Your task to perform on an android device: Open location settings Image 0: 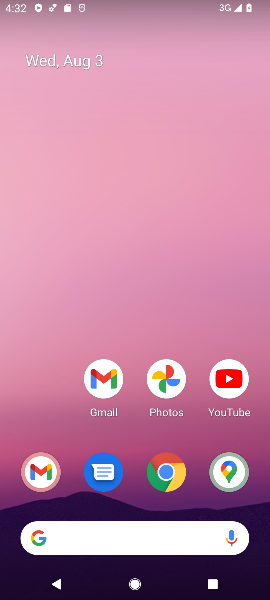
Step 0: drag from (63, 386) to (83, 250)
Your task to perform on an android device: Open location settings Image 1: 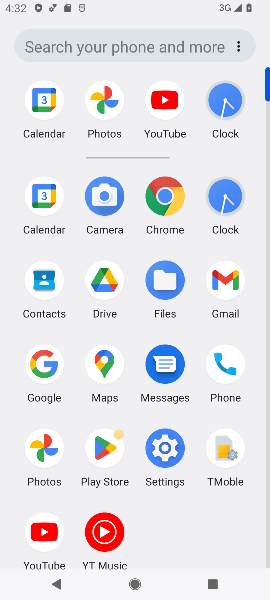
Step 1: click (172, 444)
Your task to perform on an android device: Open location settings Image 2: 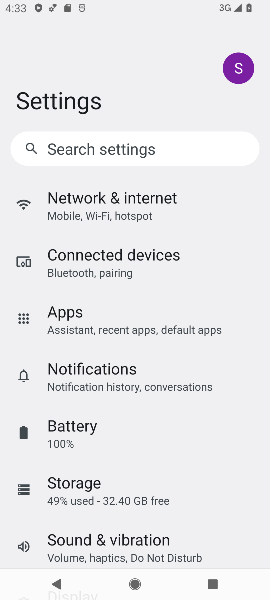
Step 2: drag from (163, 422) to (217, 150)
Your task to perform on an android device: Open location settings Image 3: 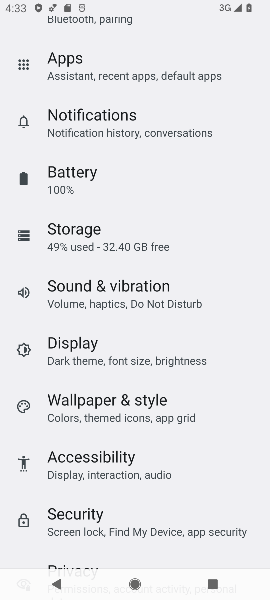
Step 3: drag from (111, 399) to (159, 152)
Your task to perform on an android device: Open location settings Image 4: 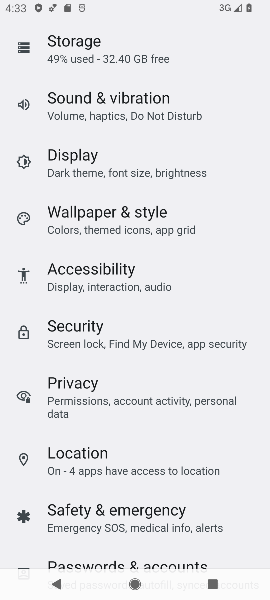
Step 4: click (86, 450)
Your task to perform on an android device: Open location settings Image 5: 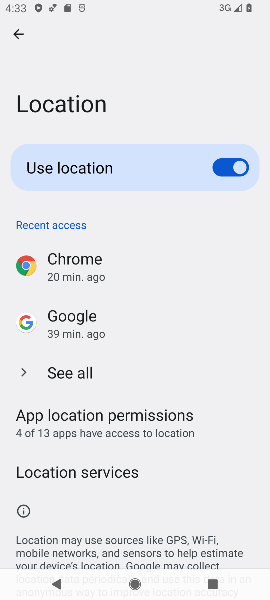
Step 5: task complete